Your task to perform on an android device: Go to Google maps Image 0: 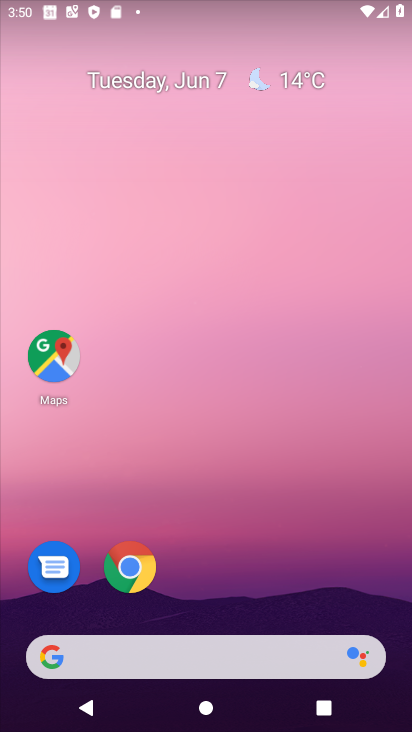
Step 0: click (70, 357)
Your task to perform on an android device: Go to Google maps Image 1: 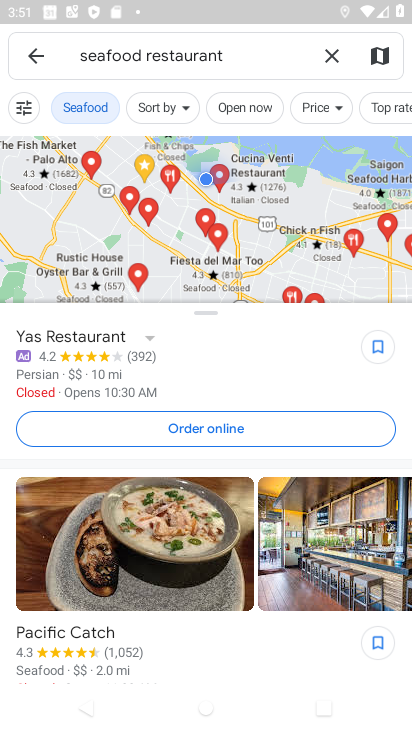
Step 1: task complete